Your task to perform on an android device: toggle javascript in the chrome app Image 0: 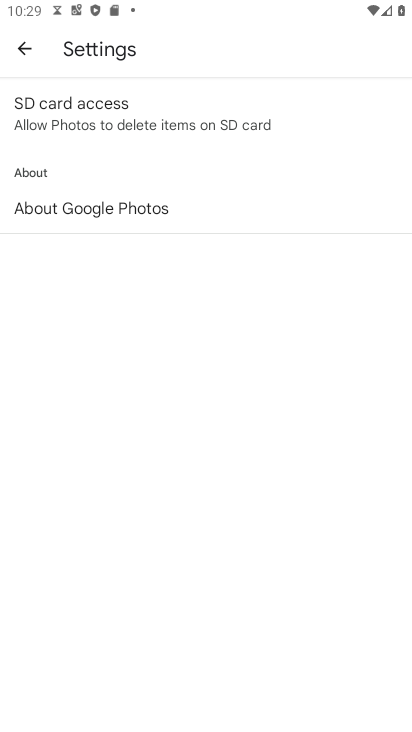
Step 0: press home button
Your task to perform on an android device: toggle javascript in the chrome app Image 1: 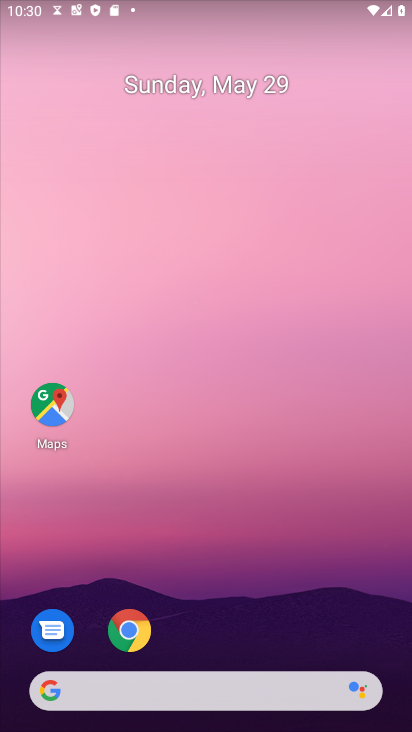
Step 1: click (140, 637)
Your task to perform on an android device: toggle javascript in the chrome app Image 2: 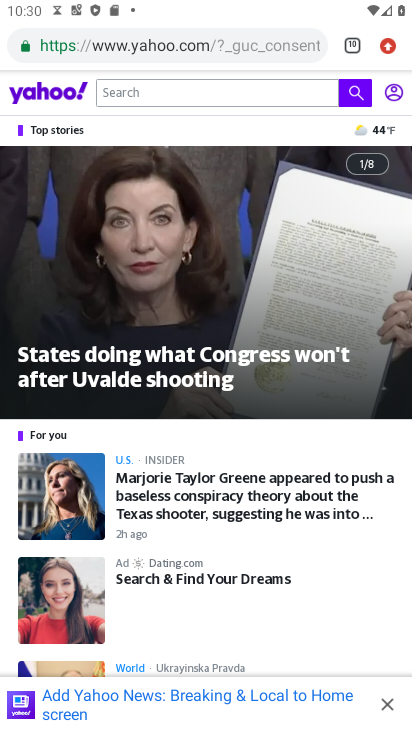
Step 2: click (388, 44)
Your task to perform on an android device: toggle javascript in the chrome app Image 3: 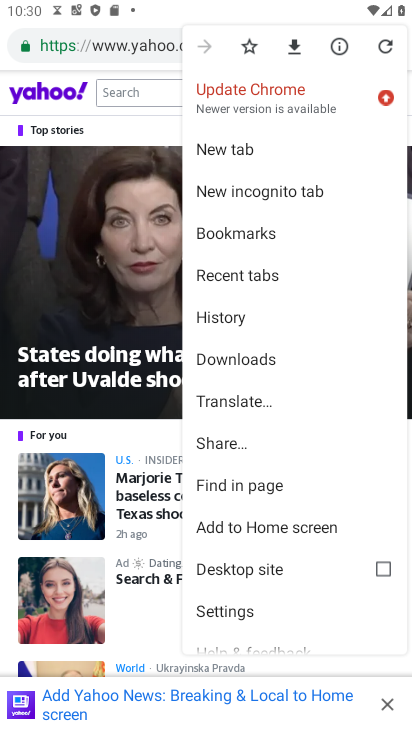
Step 3: click (237, 612)
Your task to perform on an android device: toggle javascript in the chrome app Image 4: 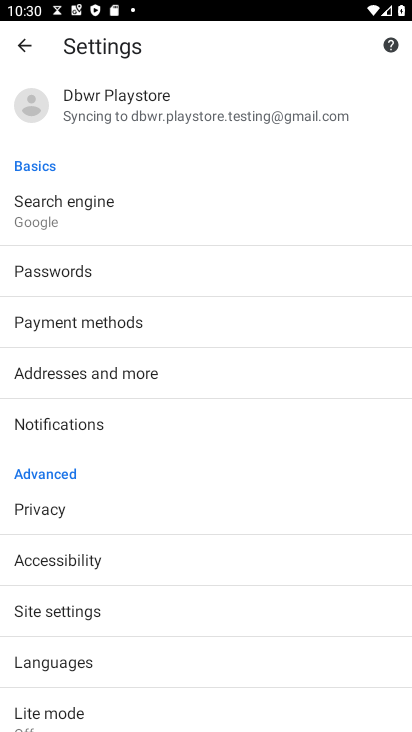
Step 4: click (88, 618)
Your task to perform on an android device: toggle javascript in the chrome app Image 5: 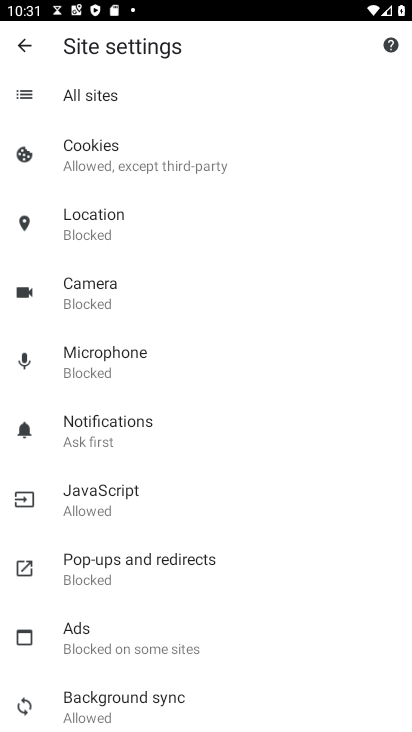
Step 5: click (136, 515)
Your task to perform on an android device: toggle javascript in the chrome app Image 6: 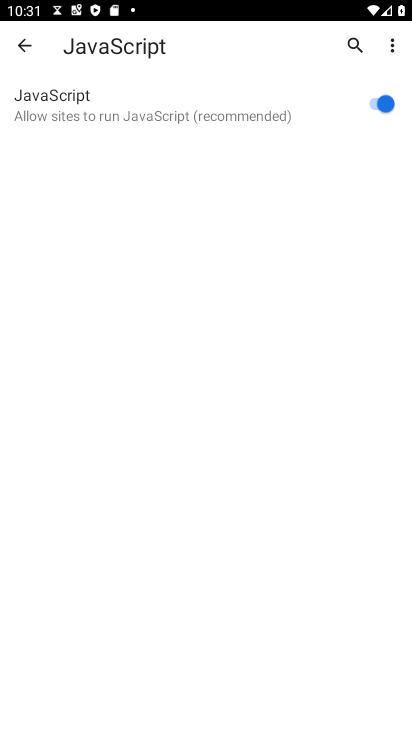
Step 6: click (375, 102)
Your task to perform on an android device: toggle javascript in the chrome app Image 7: 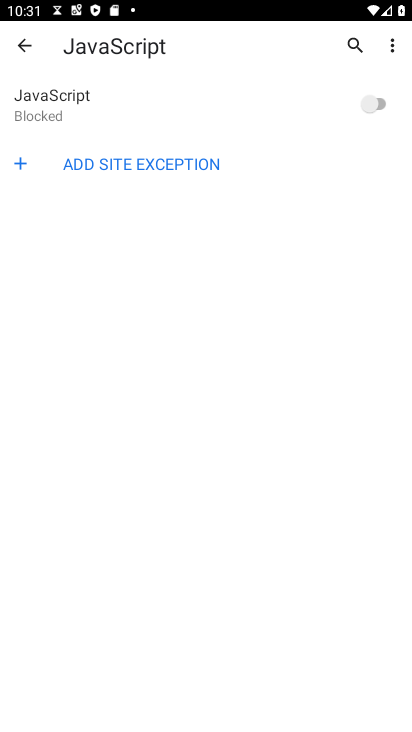
Step 7: task complete